Your task to perform on an android device: turn off improve location accuracy Image 0: 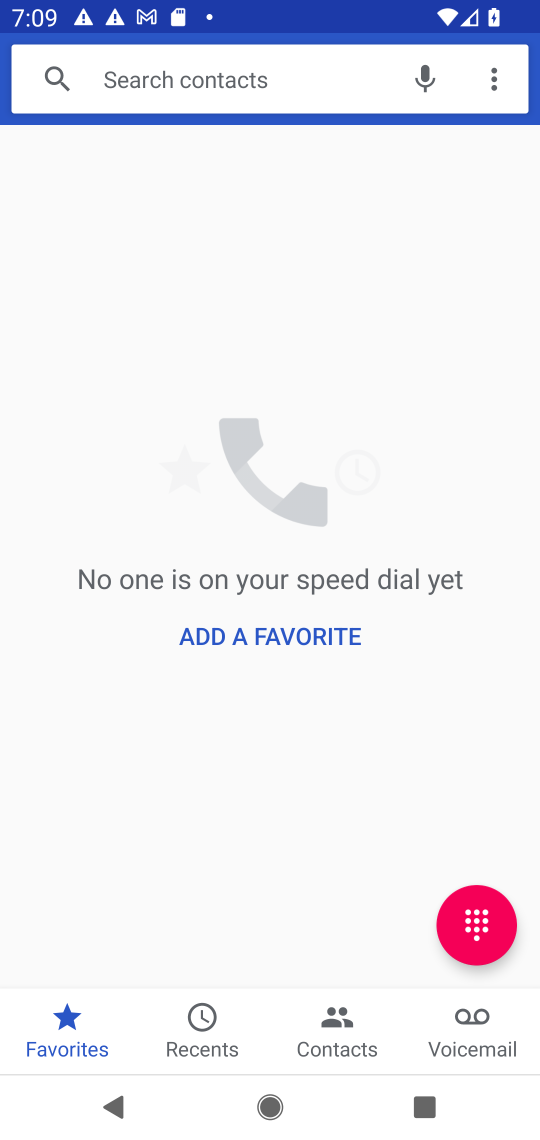
Step 0: press home button
Your task to perform on an android device: turn off improve location accuracy Image 1: 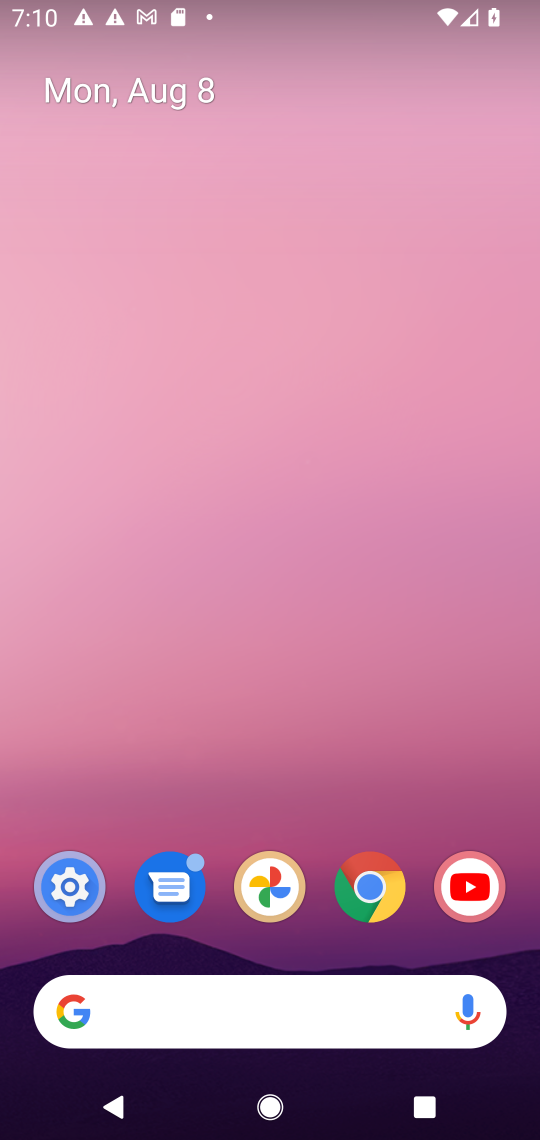
Step 1: click (83, 883)
Your task to perform on an android device: turn off improve location accuracy Image 2: 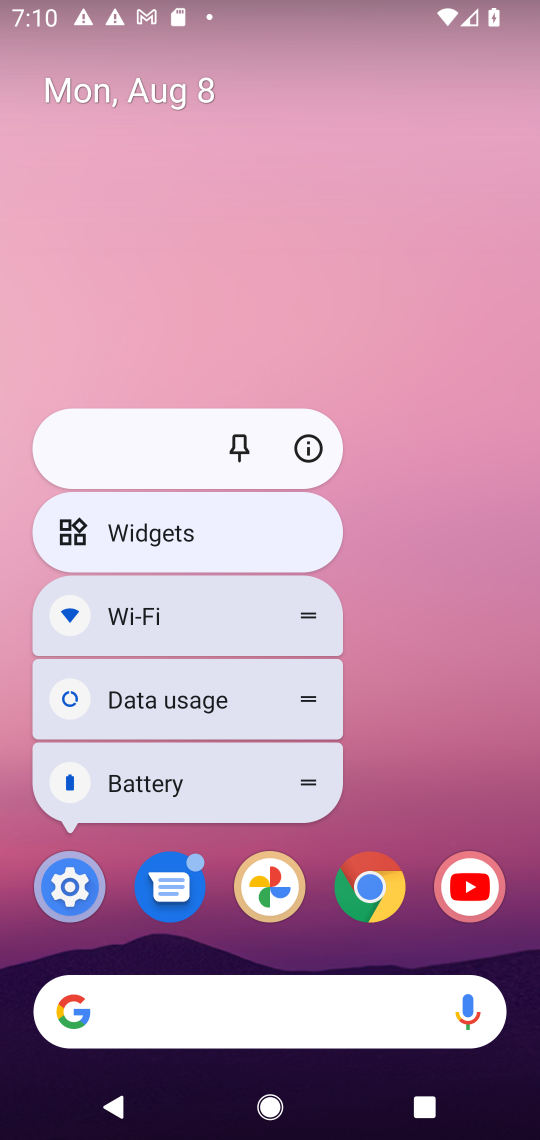
Step 2: click (83, 883)
Your task to perform on an android device: turn off improve location accuracy Image 3: 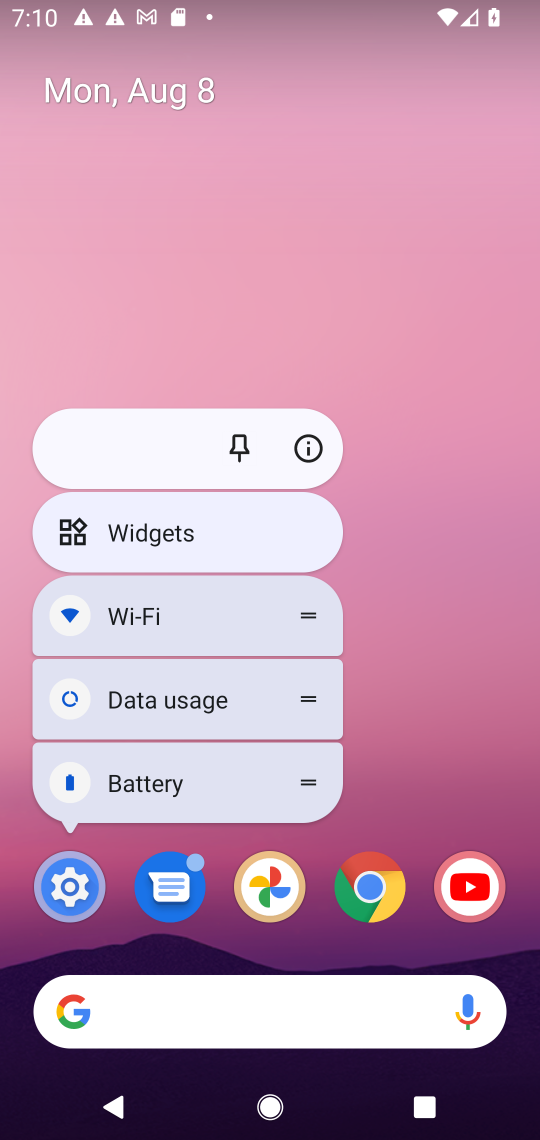
Step 3: click (63, 907)
Your task to perform on an android device: turn off improve location accuracy Image 4: 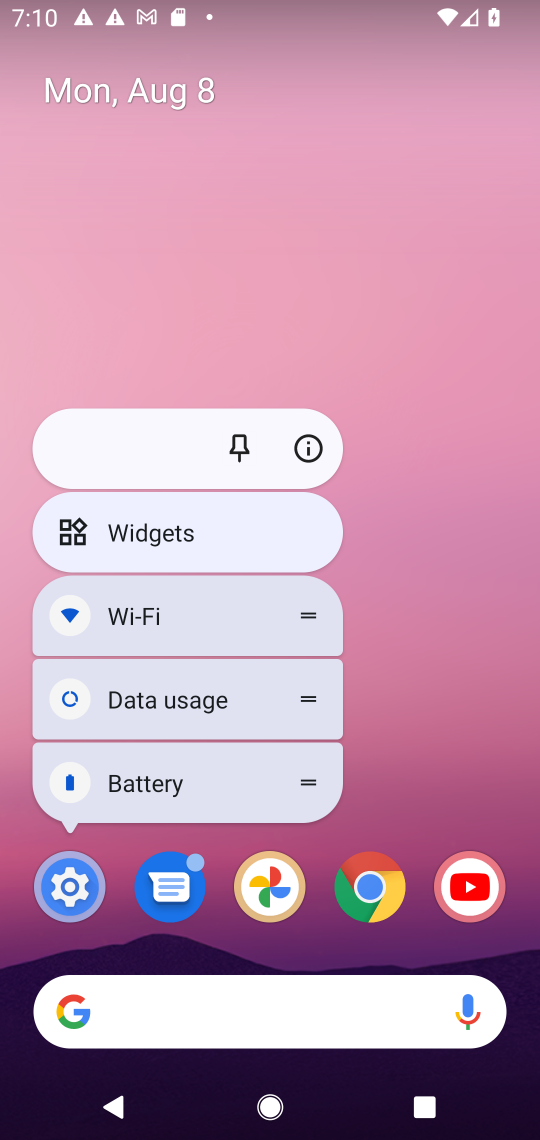
Step 4: click (63, 907)
Your task to perform on an android device: turn off improve location accuracy Image 5: 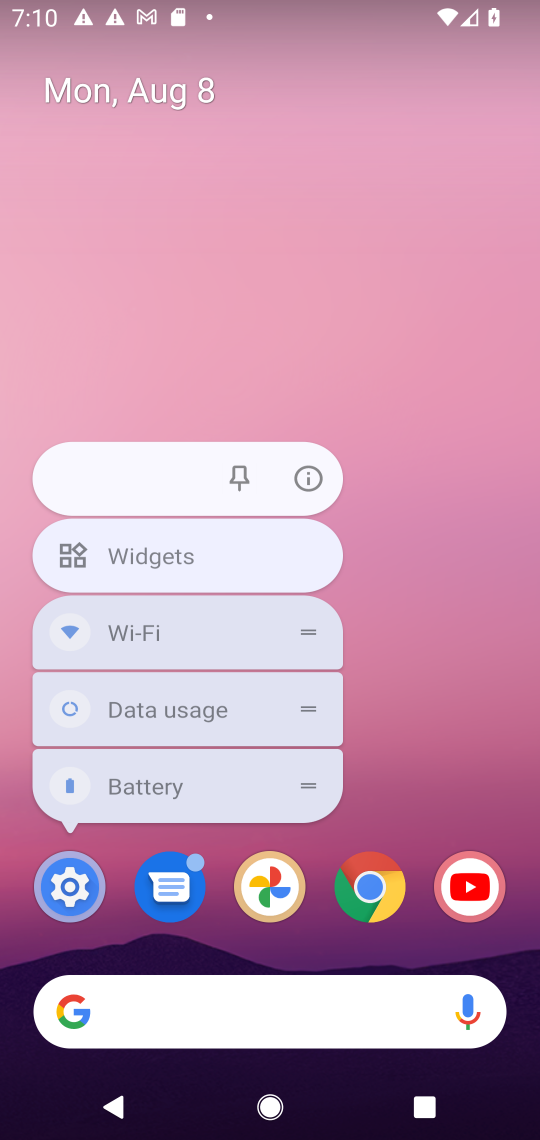
Step 5: click (63, 907)
Your task to perform on an android device: turn off improve location accuracy Image 6: 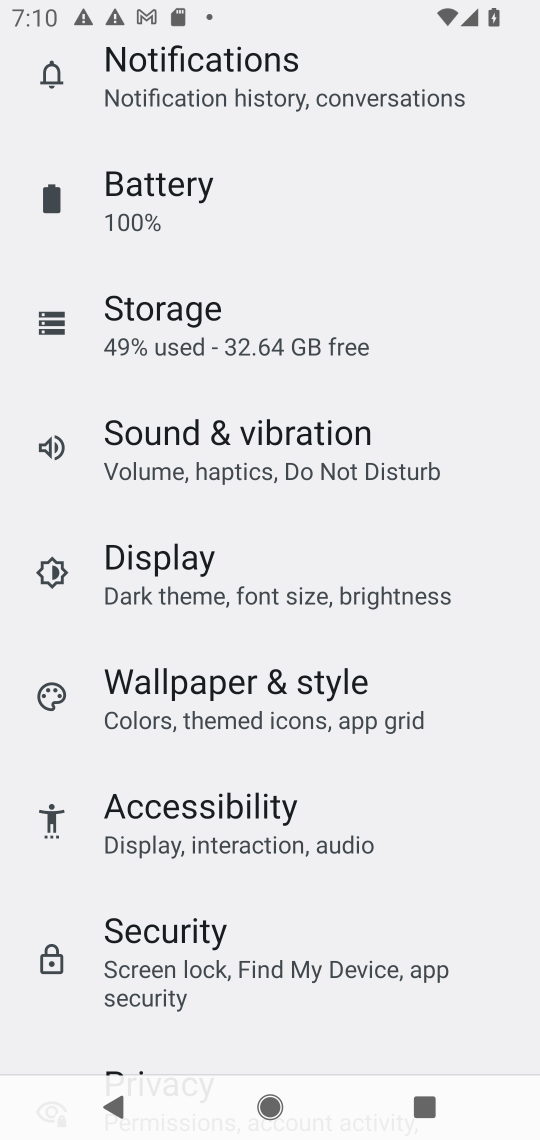
Step 6: drag from (312, 975) to (307, 129)
Your task to perform on an android device: turn off improve location accuracy Image 7: 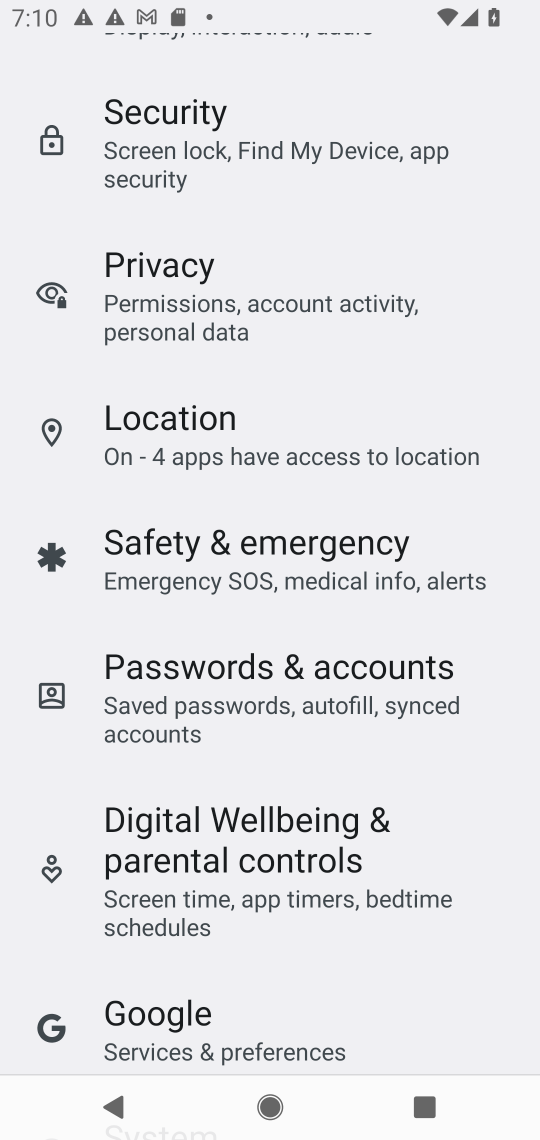
Step 7: click (269, 435)
Your task to perform on an android device: turn off improve location accuracy Image 8: 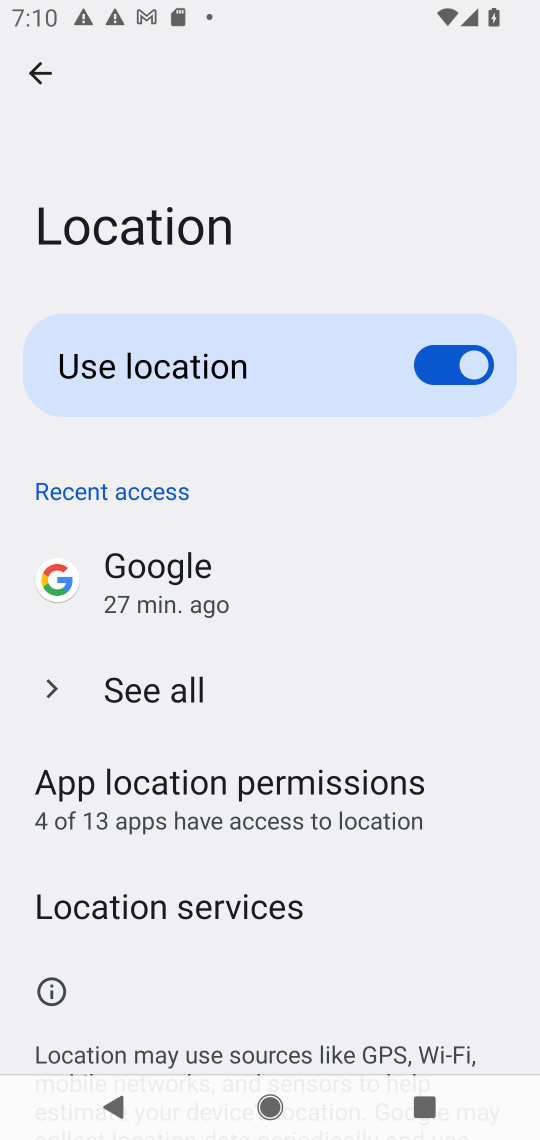
Step 8: click (204, 905)
Your task to perform on an android device: turn off improve location accuracy Image 9: 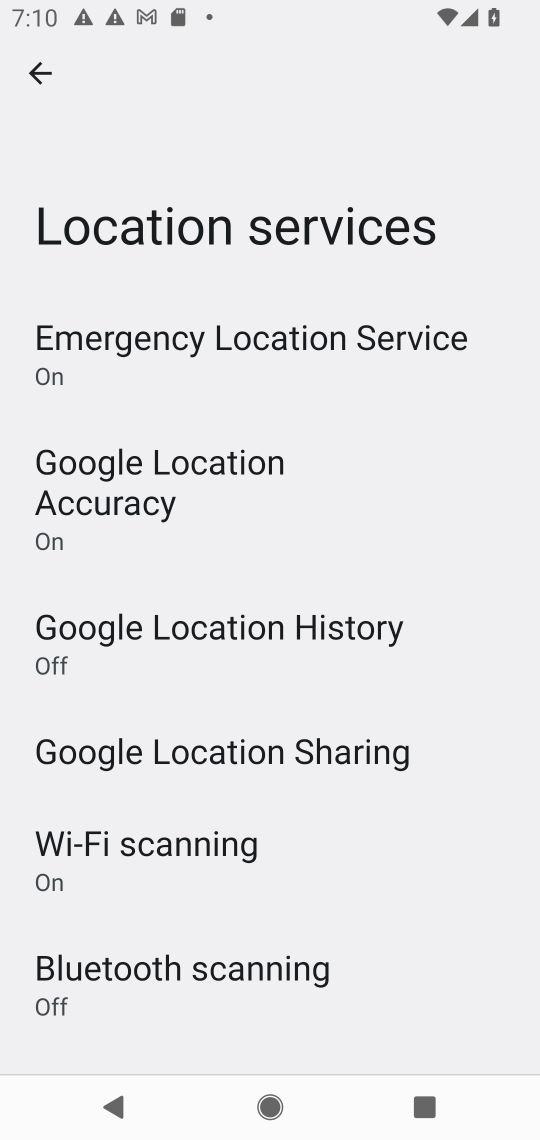
Step 9: click (224, 479)
Your task to perform on an android device: turn off improve location accuracy Image 10: 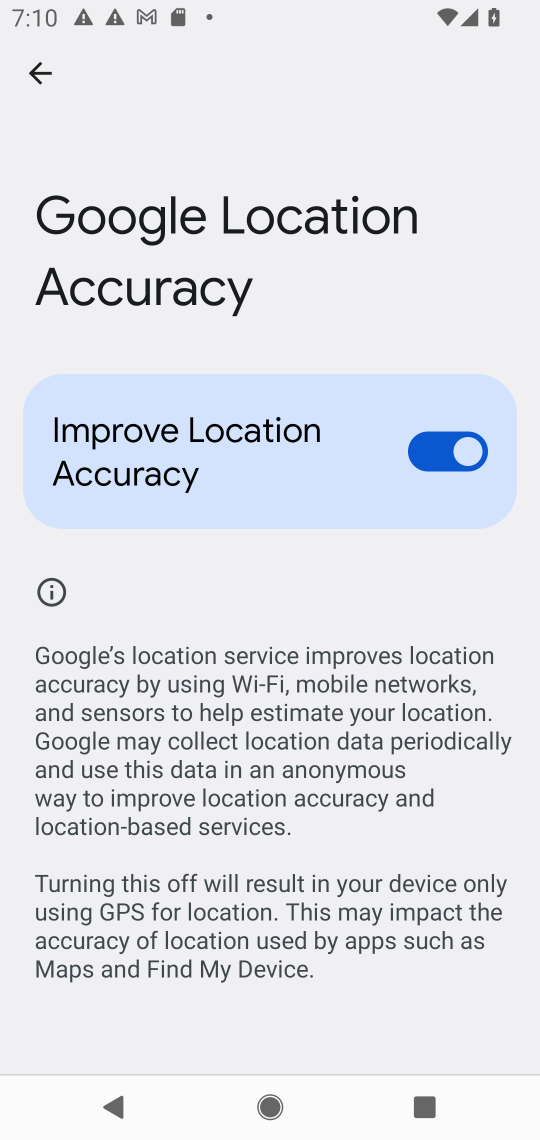
Step 10: click (457, 446)
Your task to perform on an android device: turn off improve location accuracy Image 11: 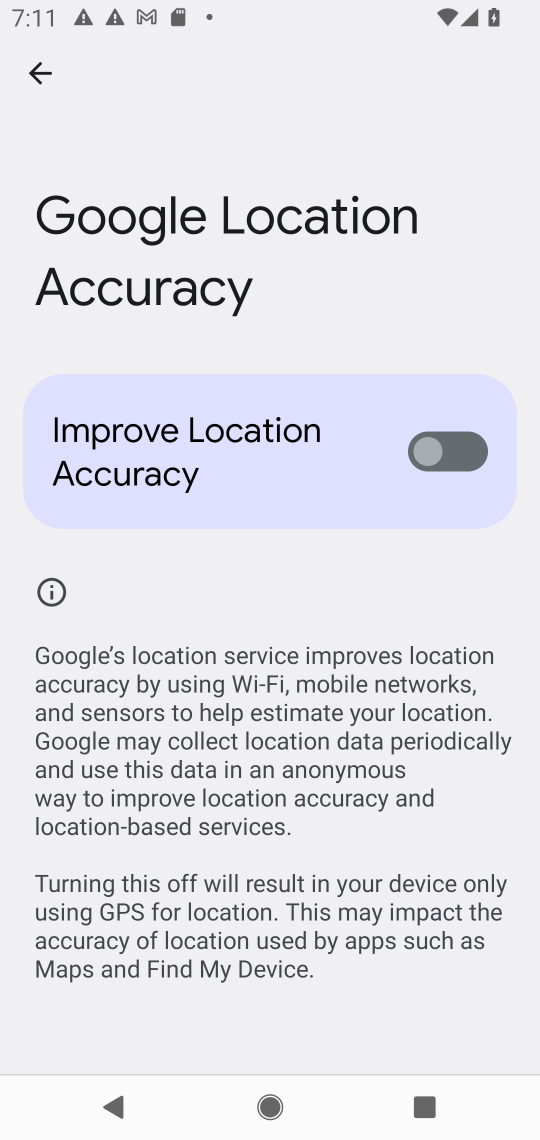
Step 11: task complete